Your task to perform on an android device: open chrome and create a bookmark for the current page Image 0: 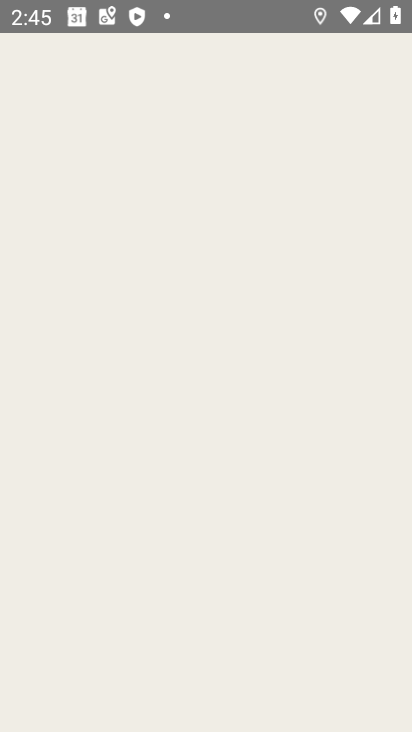
Step 0: press home button
Your task to perform on an android device: open chrome and create a bookmark for the current page Image 1: 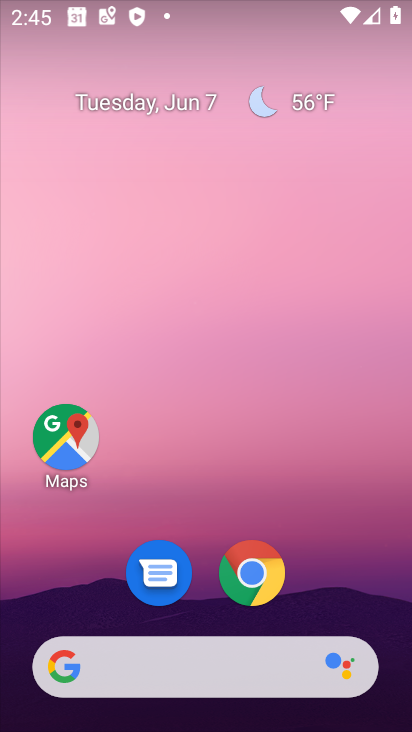
Step 1: click (240, 568)
Your task to perform on an android device: open chrome and create a bookmark for the current page Image 2: 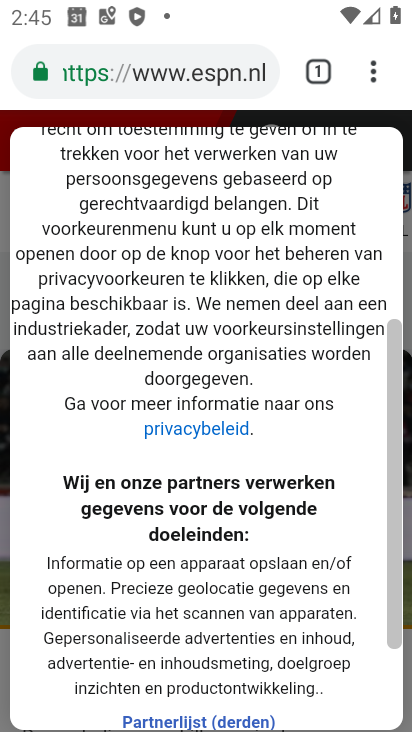
Step 2: click (371, 73)
Your task to perform on an android device: open chrome and create a bookmark for the current page Image 3: 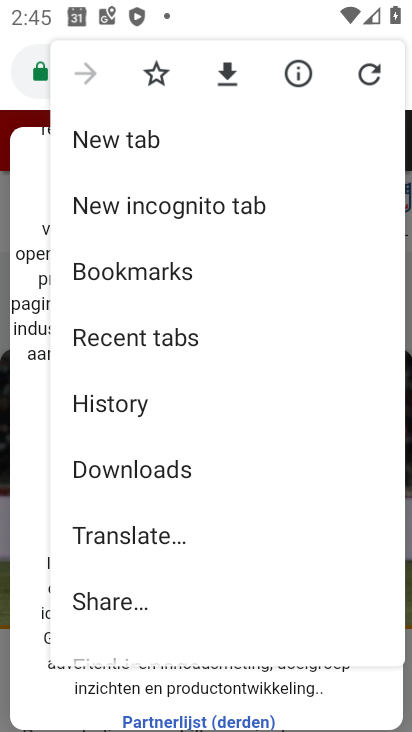
Step 3: click (162, 76)
Your task to perform on an android device: open chrome and create a bookmark for the current page Image 4: 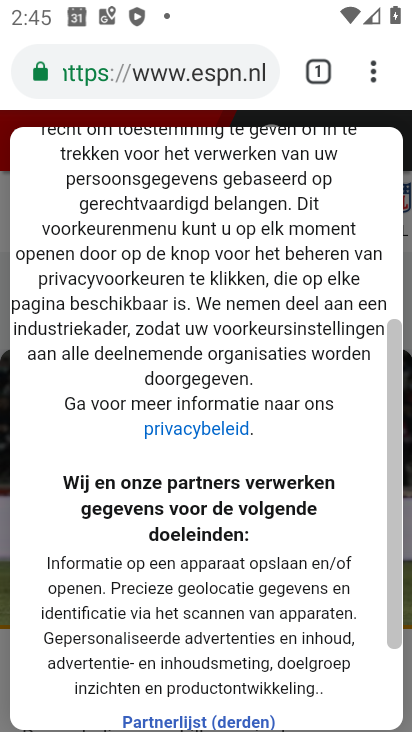
Step 4: task complete